Your task to perform on an android device: add a contact in the contacts app Image 0: 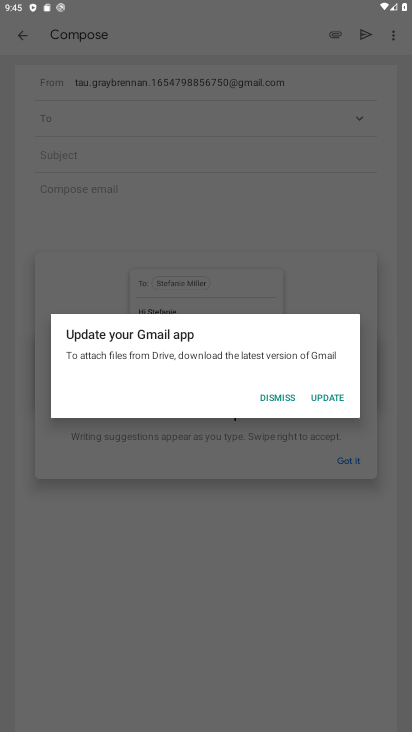
Step 0: press home button
Your task to perform on an android device: add a contact in the contacts app Image 1: 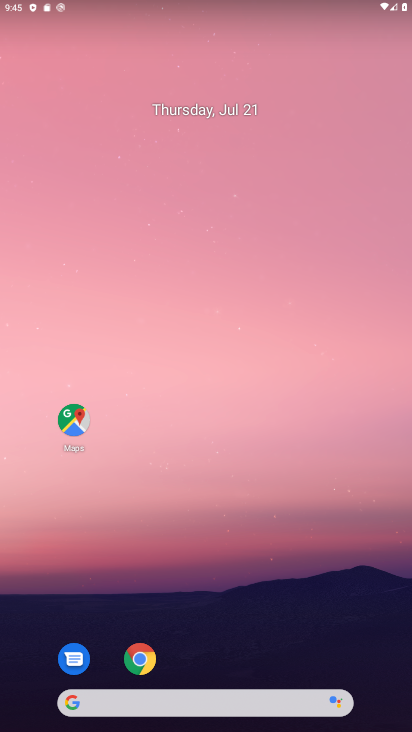
Step 1: drag from (262, 586) to (193, 114)
Your task to perform on an android device: add a contact in the contacts app Image 2: 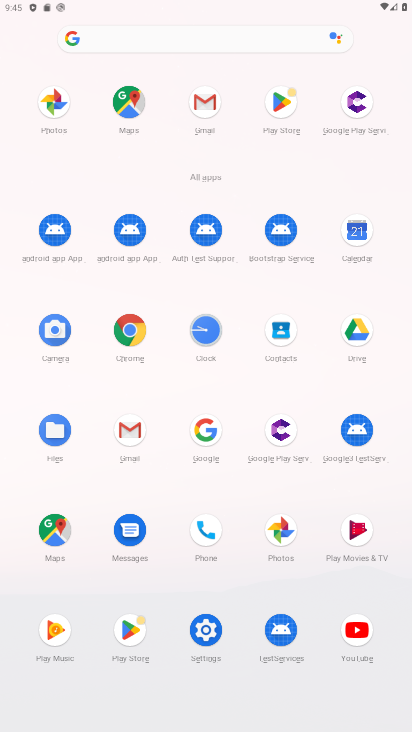
Step 2: click (281, 330)
Your task to perform on an android device: add a contact in the contacts app Image 3: 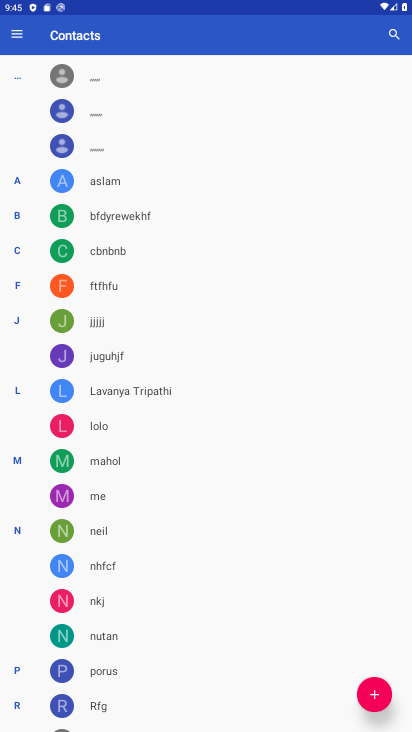
Step 3: click (376, 692)
Your task to perform on an android device: add a contact in the contacts app Image 4: 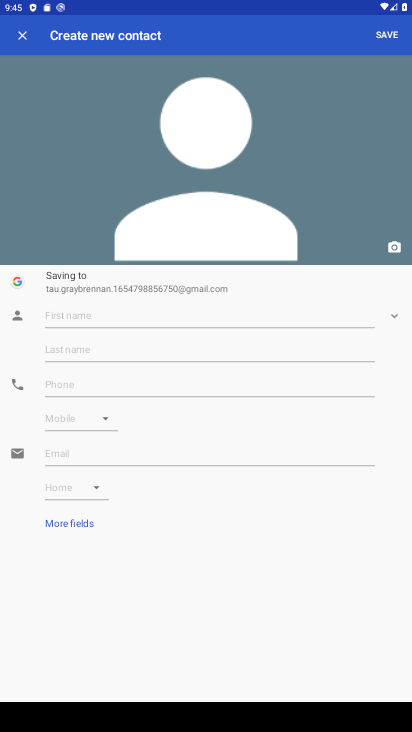
Step 4: click (315, 302)
Your task to perform on an android device: add a contact in the contacts app Image 5: 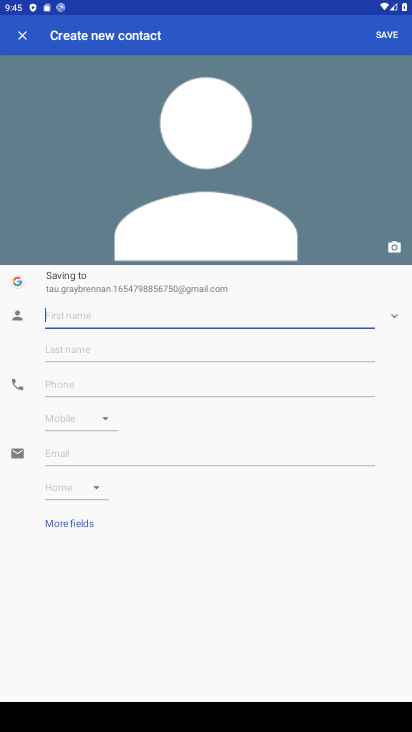
Step 5: click (313, 311)
Your task to perform on an android device: add a contact in the contacts app Image 6: 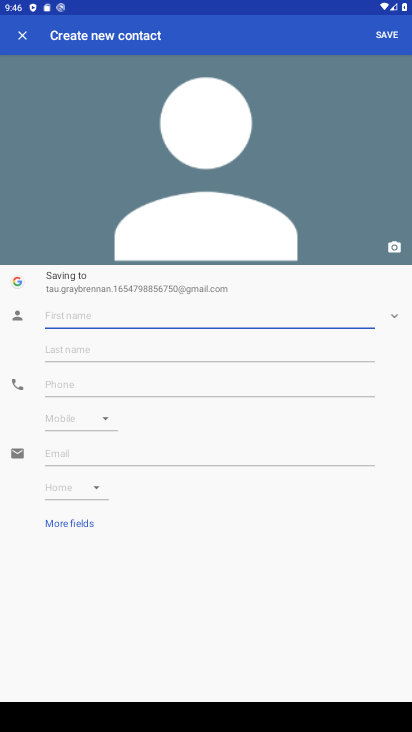
Step 6: type "oomm"
Your task to perform on an android device: add a contact in the contacts app Image 7: 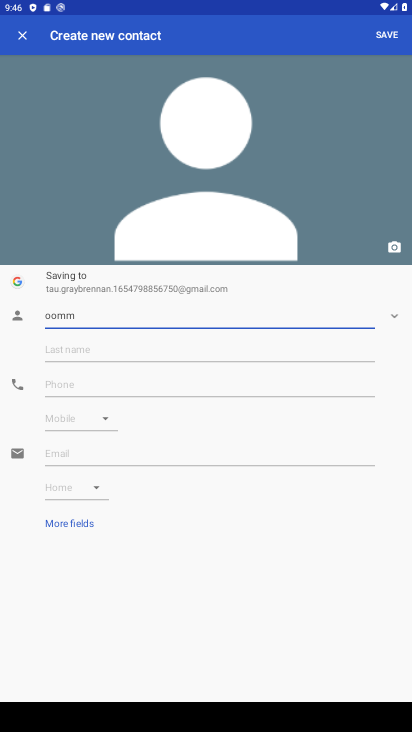
Step 7: click (395, 35)
Your task to perform on an android device: add a contact in the contacts app Image 8: 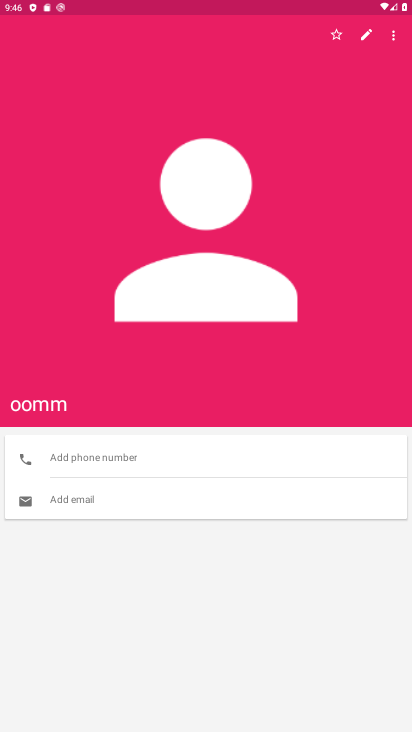
Step 8: task complete